Your task to perform on an android device: Open battery settings Image 0: 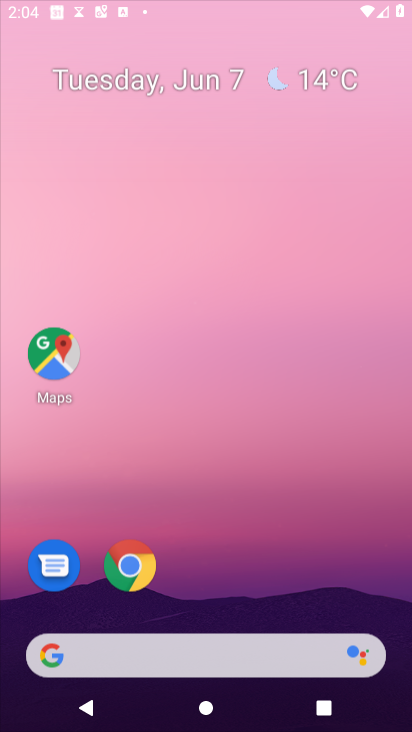
Step 0: click (261, 1)
Your task to perform on an android device: Open battery settings Image 1: 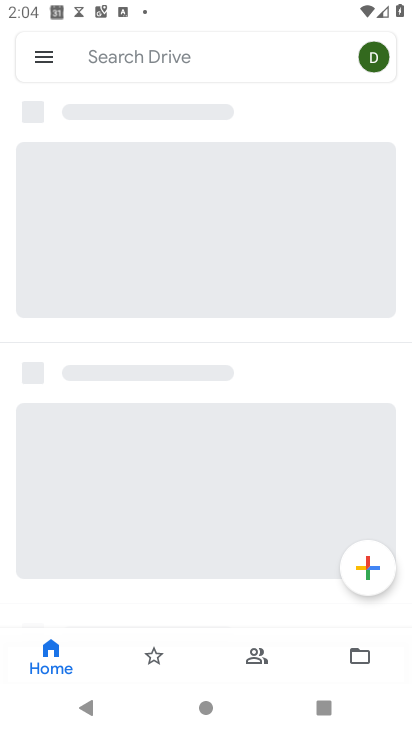
Step 1: press home button
Your task to perform on an android device: Open battery settings Image 2: 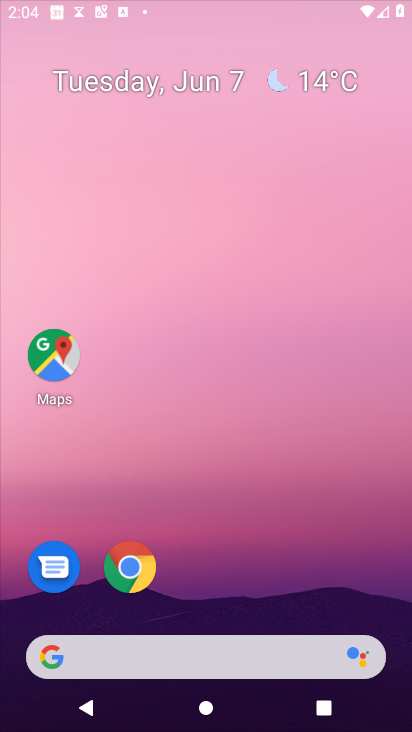
Step 2: drag from (229, 647) to (214, 54)
Your task to perform on an android device: Open battery settings Image 3: 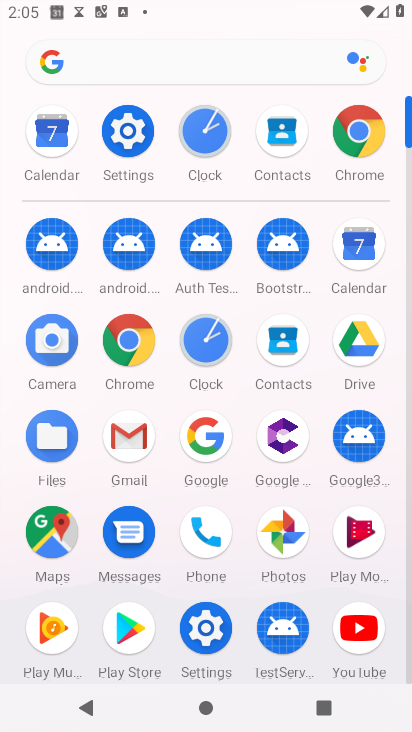
Step 3: click (142, 146)
Your task to perform on an android device: Open battery settings Image 4: 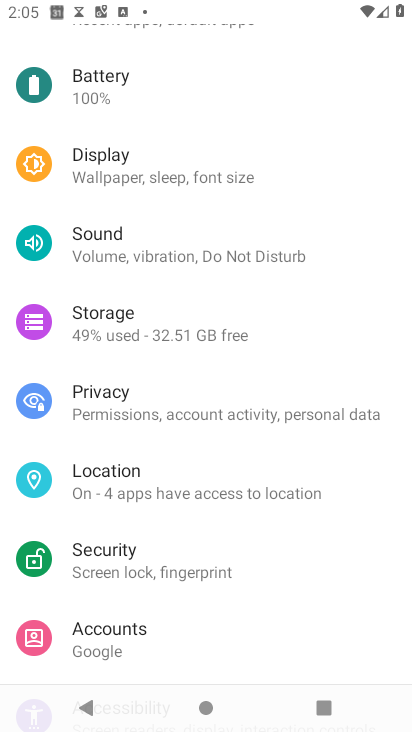
Step 4: click (131, 86)
Your task to perform on an android device: Open battery settings Image 5: 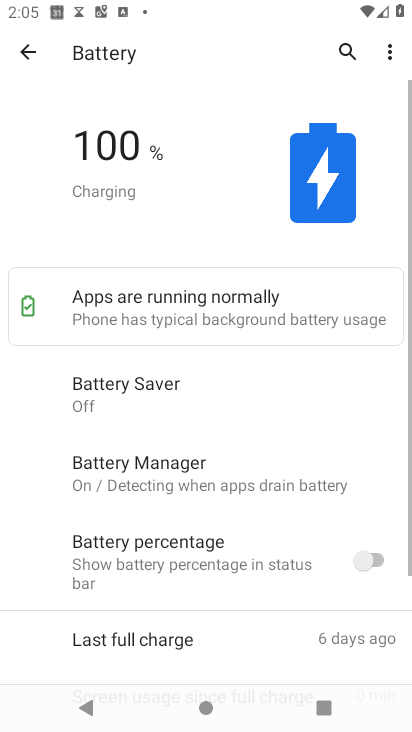
Step 5: task complete